Your task to perform on an android device: Set the phone to "Do not disturb". Image 0: 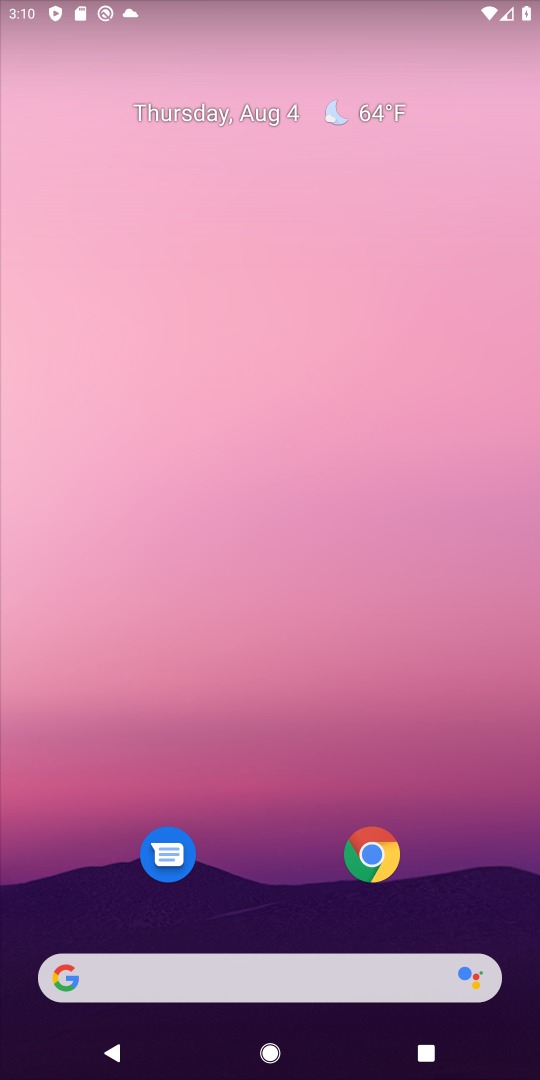
Step 0: drag from (287, 800) to (220, 316)
Your task to perform on an android device: Set the phone to "Do not disturb". Image 1: 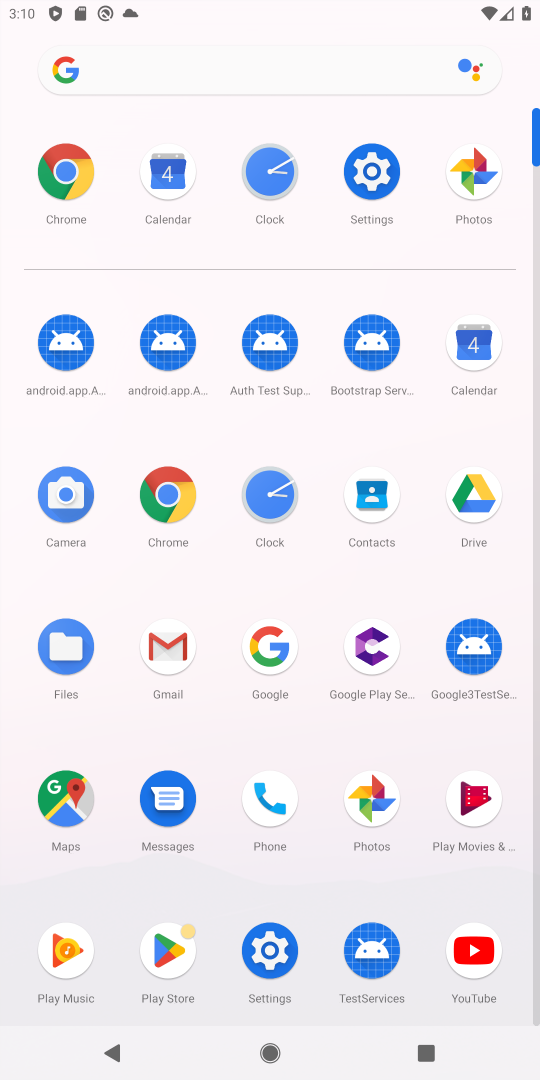
Step 1: drag from (232, 4) to (175, 678)
Your task to perform on an android device: Set the phone to "Do not disturb". Image 2: 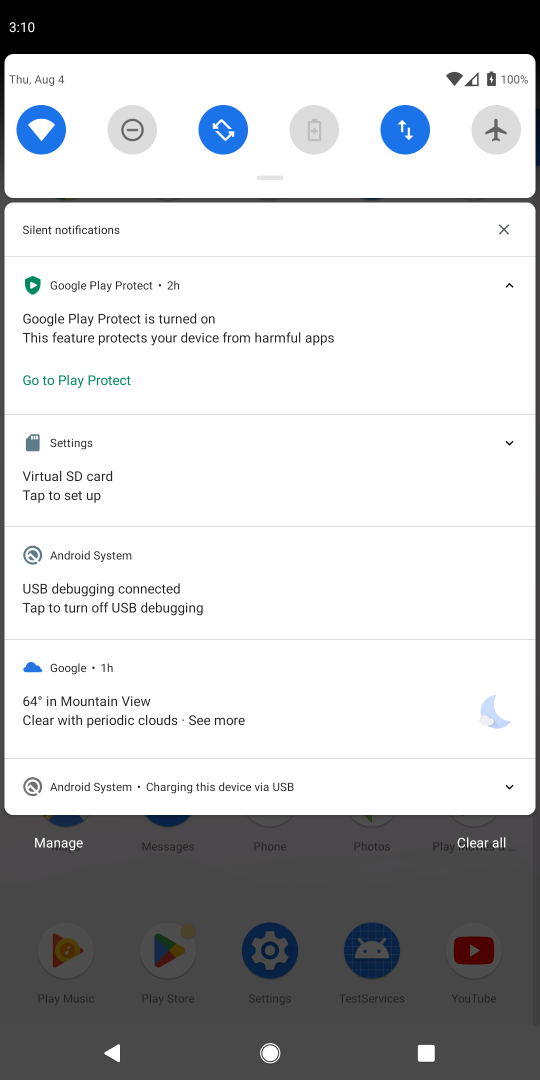
Step 2: click (125, 120)
Your task to perform on an android device: Set the phone to "Do not disturb". Image 3: 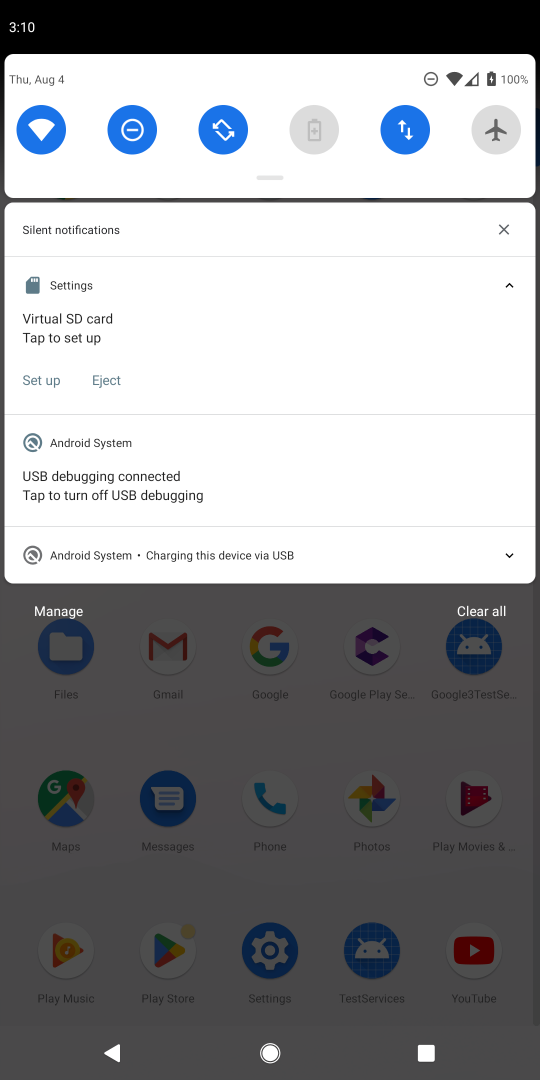
Step 3: task complete